Your task to perform on an android device: change notifications settings Image 0: 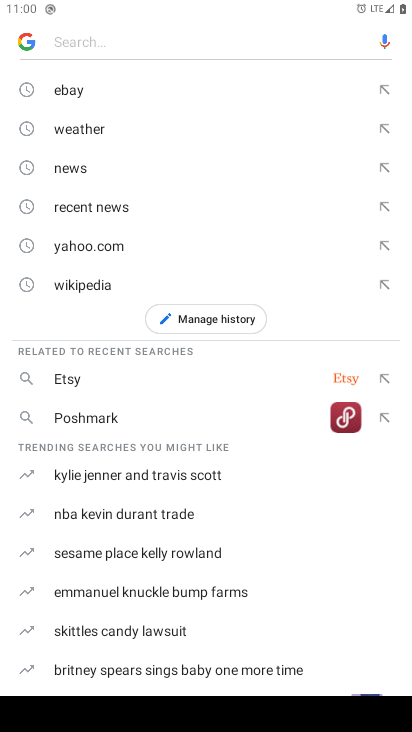
Step 0: press home button
Your task to perform on an android device: change notifications settings Image 1: 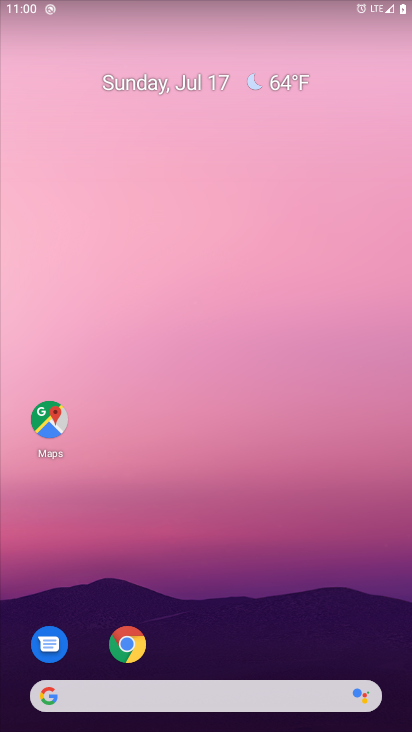
Step 1: drag from (253, 489) to (230, 1)
Your task to perform on an android device: change notifications settings Image 2: 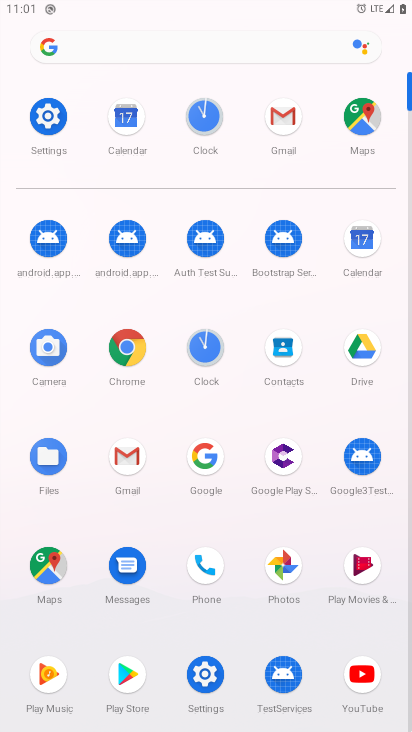
Step 2: click (48, 105)
Your task to perform on an android device: change notifications settings Image 3: 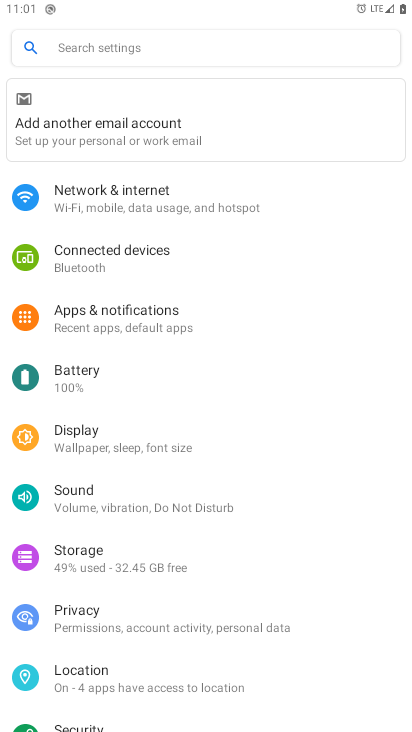
Step 3: click (87, 315)
Your task to perform on an android device: change notifications settings Image 4: 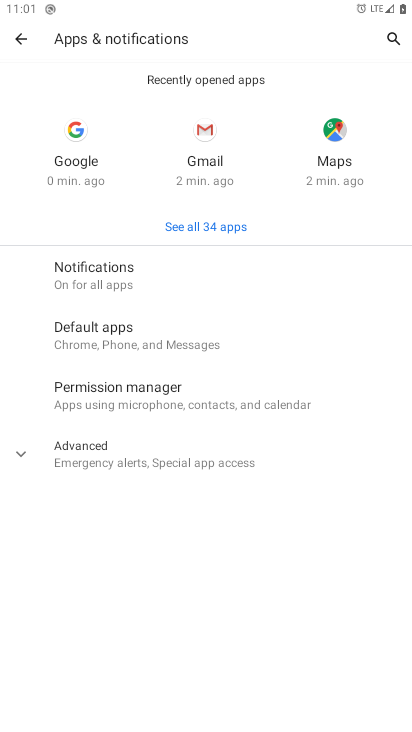
Step 4: click (52, 281)
Your task to perform on an android device: change notifications settings Image 5: 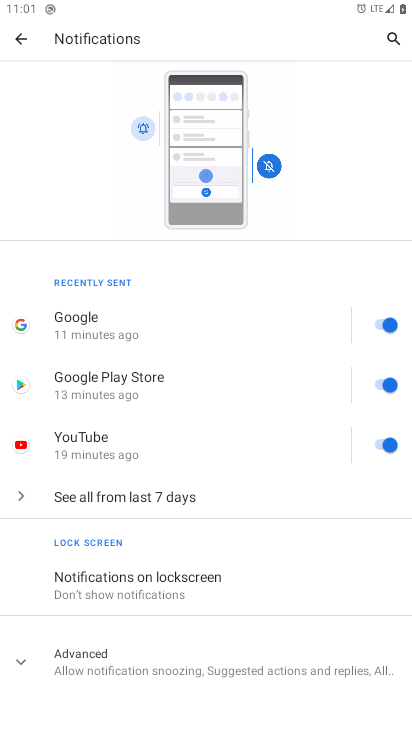
Step 5: click (138, 125)
Your task to perform on an android device: change notifications settings Image 6: 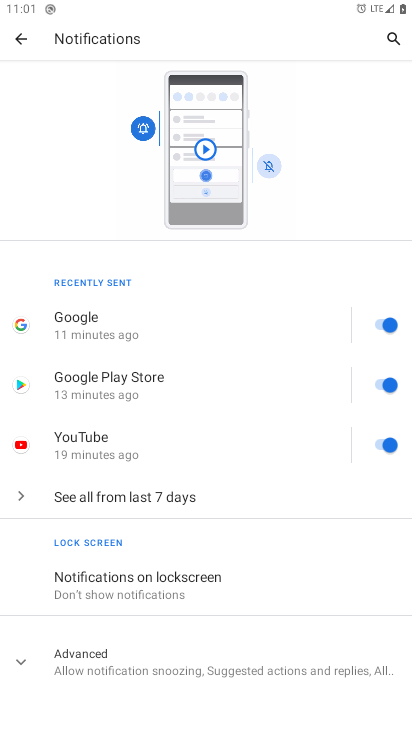
Step 6: task complete